Your task to perform on an android device: Open Android settings Image 0: 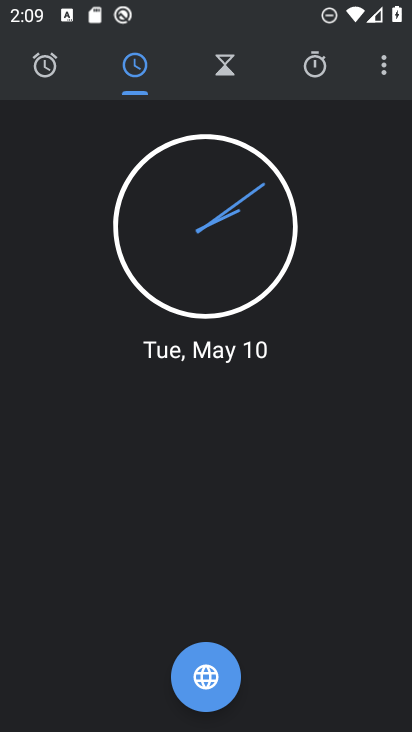
Step 0: press home button
Your task to perform on an android device: Open Android settings Image 1: 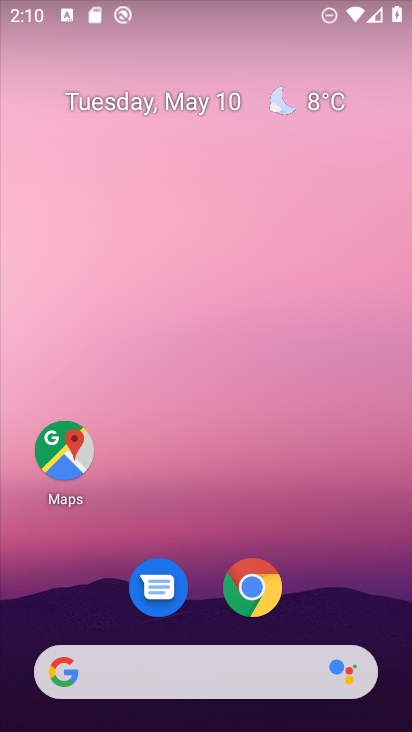
Step 1: drag from (401, 661) to (373, 241)
Your task to perform on an android device: Open Android settings Image 2: 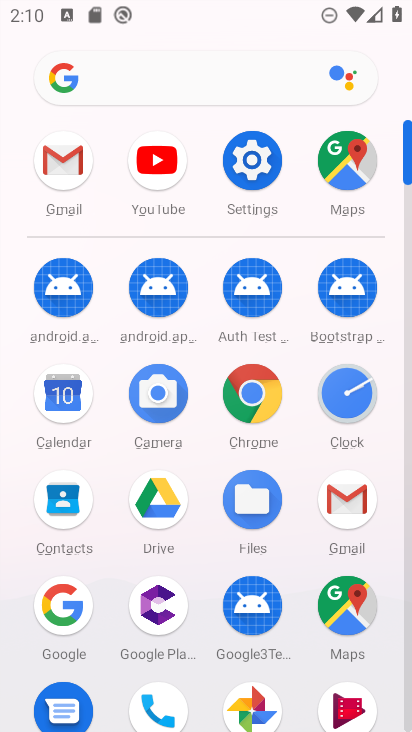
Step 2: click (256, 169)
Your task to perform on an android device: Open Android settings Image 3: 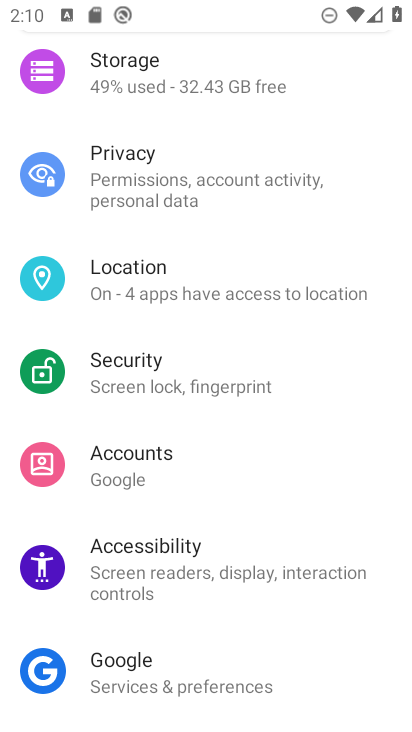
Step 3: drag from (330, 671) to (347, 360)
Your task to perform on an android device: Open Android settings Image 4: 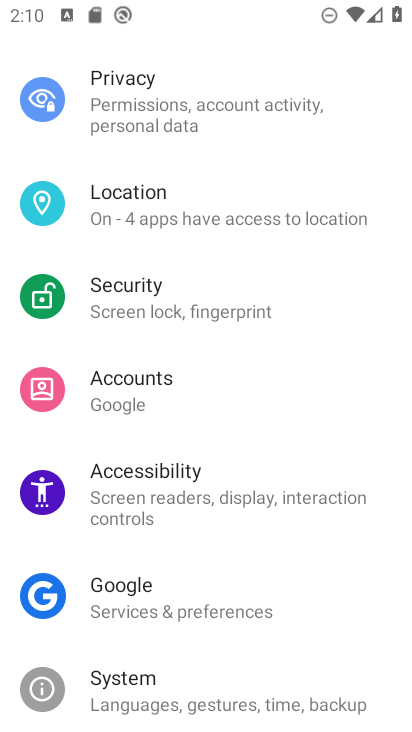
Step 4: drag from (331, 661) to (331, 418)
Your task to perform on an android device: Open Android settings Image 5: 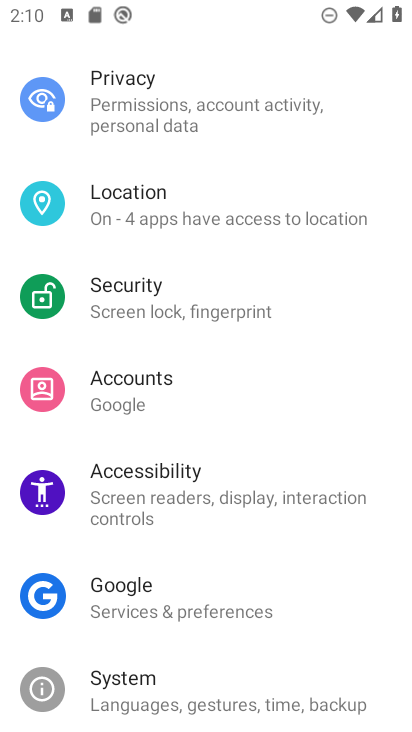
Step 5: drag from (341, 662) to (302, 371)
Your task to perform on an android device: Open Android settings Image 6: 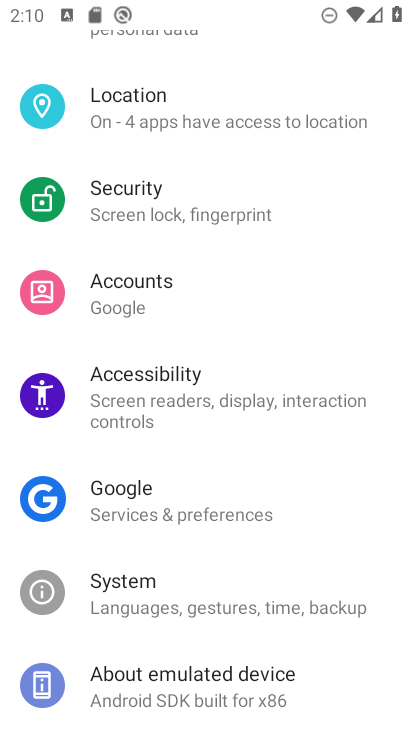
Step 6: click (239, 667)
Your task to perform on an android device: Open Android settings Image 7: 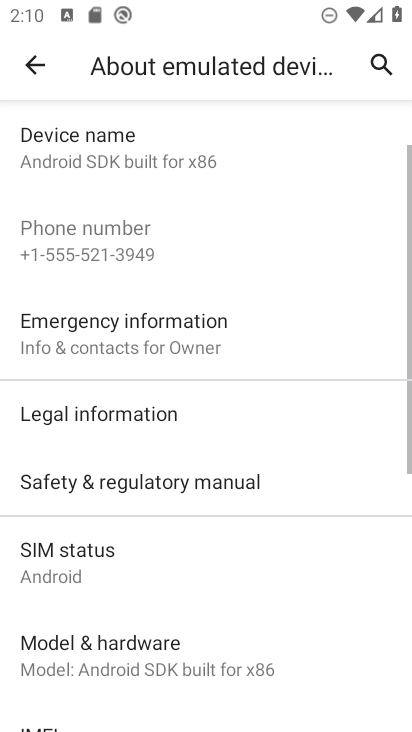
Step 7: click (34, 71)
Your task to perform on an android device: Open Android settings Image 8: 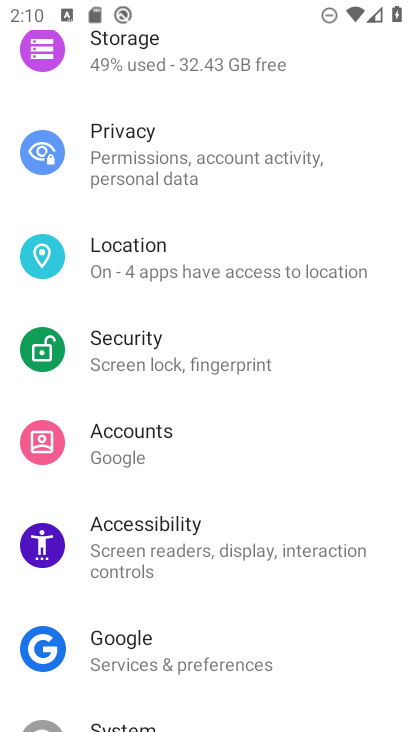
Step 8: task complete